Your task to perform on an android device: Check the news Image 0: 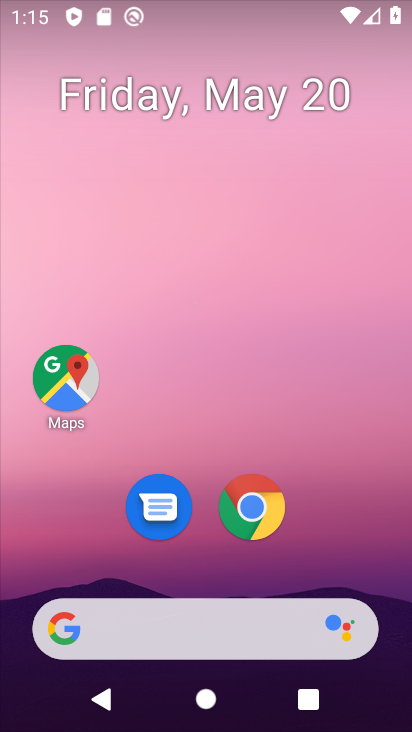
Step 0: click (272, 509)
Your task to perform on an android device: Check the news Image 1: 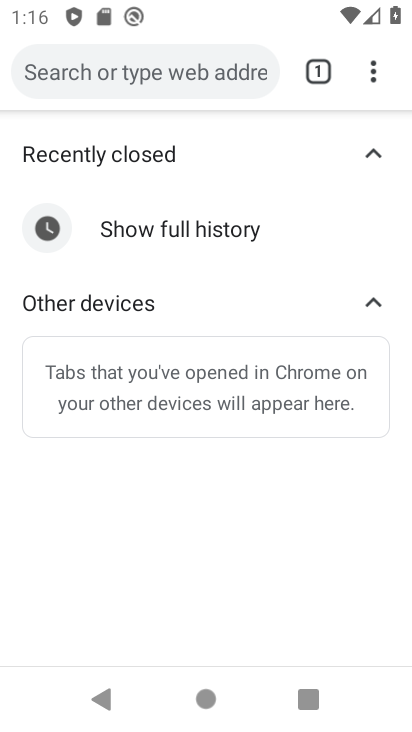
Step 1: click (251, 70)
Your task to perform on an android device: Check the news Image 2: 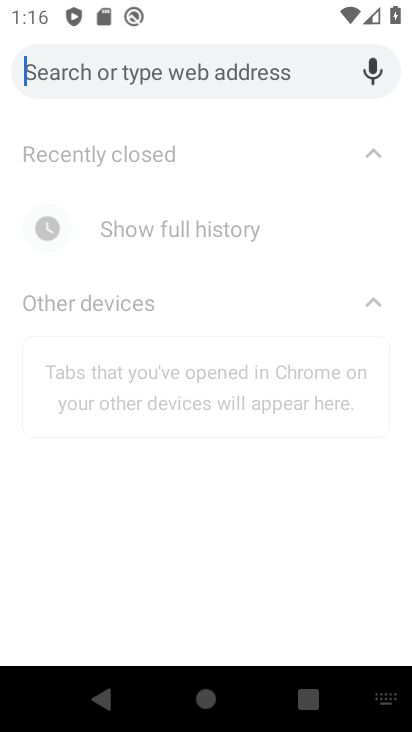
Step 2: type "news"
Your task to perform on an android device: Check the news Image 3: 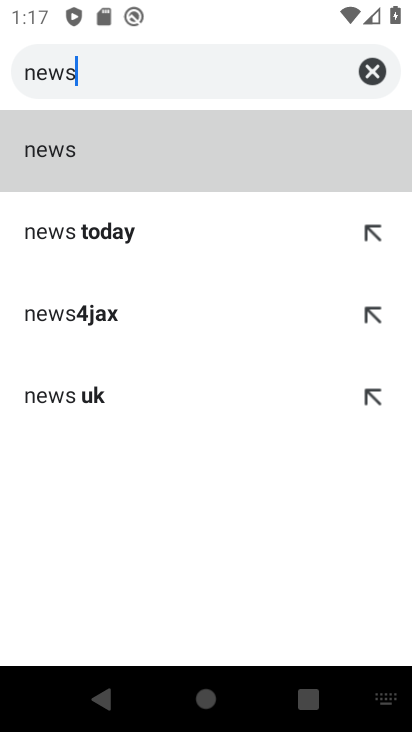
Step 3: click (54, 148)
Your task to perform on an android device: Check the news Image 4: 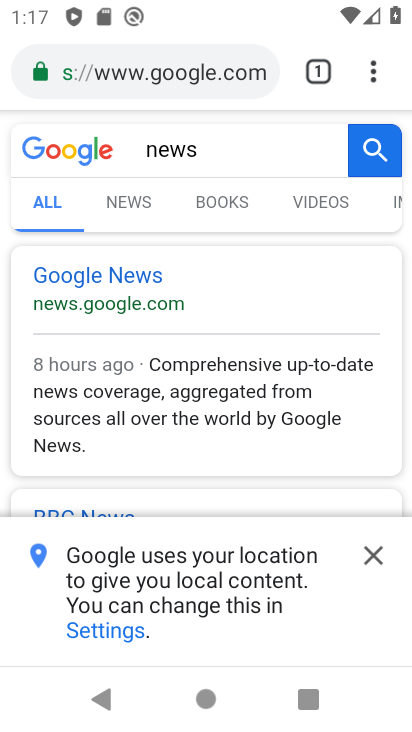
Step 4: click (146, 271)
Your task to perform on an android device: Check the news Image 5: 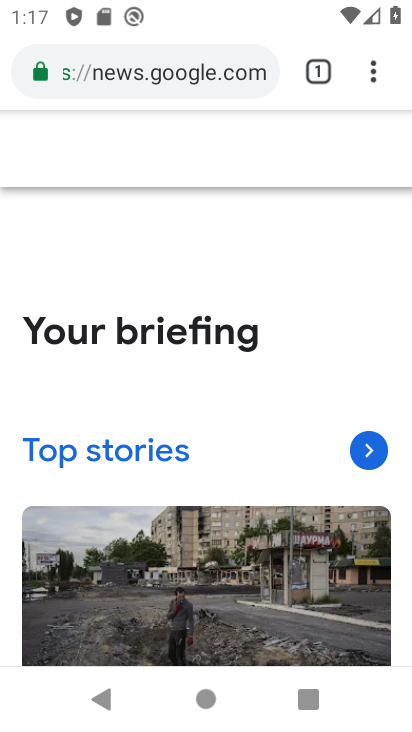
Step 5: task complete